Your task to perform on an android device: When is my next meeting? Image 0: 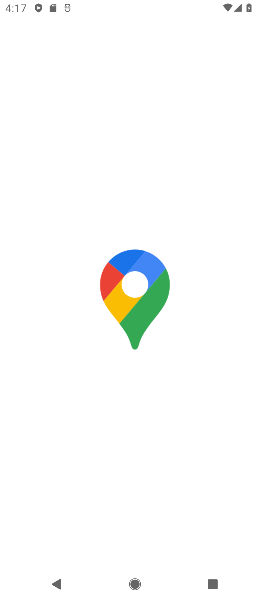
Step 0: press home button
Your task to perform on an android device: When is my next meeting? Image 1: 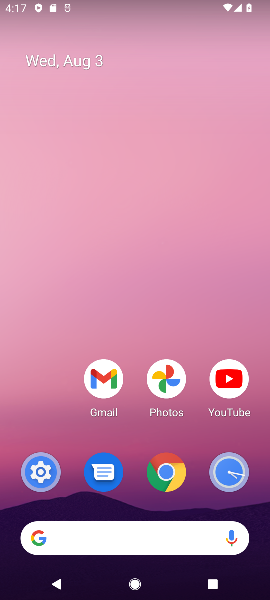
Step 1: drag from (132, 424) to (189, 61)
Your task to perform on an android device: When is my next meeting? Image 2: 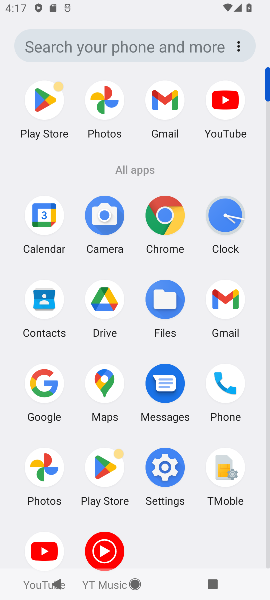
Step 2: click (44, 213)
Your task to perform on an android device: When is my next meeting? Image 3: 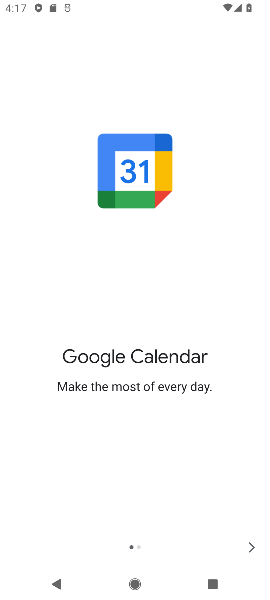
Step 3: click (248, 544)
Your task to perform on an android device: When is my next meeting? Image 4: 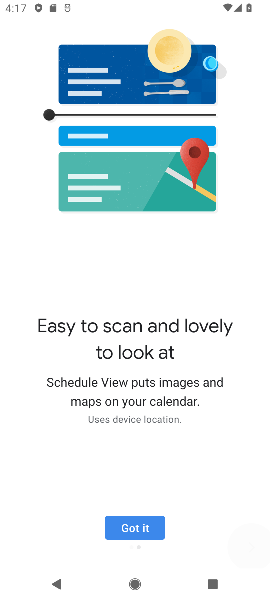
Step 4: click (248, 544)
Your task to perform on an android device: When is my next meeting? Image 5: 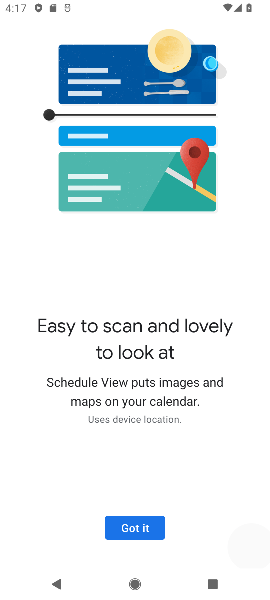
Step 5: click (248, 544)
Your task to perform on an android device: When is my next meeting? Image 6: 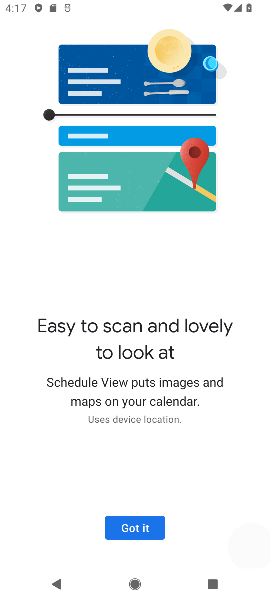
Step 6: click (126, 517)
Your task to perform on an android device: When is my next meeting? Image 7: 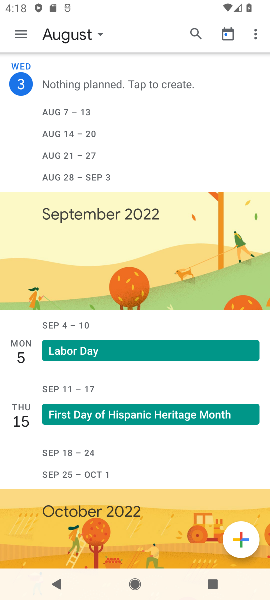
Step 7: click (88, 32)
Your task to perform on an android device: When is my next meeting? Image 8: 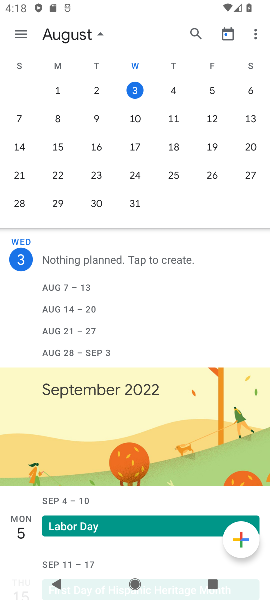
Step 8: click (32, 35)
Your task to perform on an android device: When is my next meeting? Image 9: 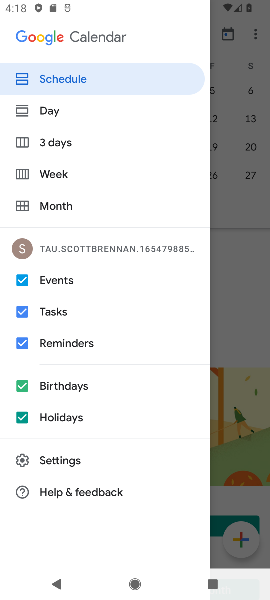
Step 9: click (53, 147)
Your task to perform on an android device: When is my next meeting? Image 10: 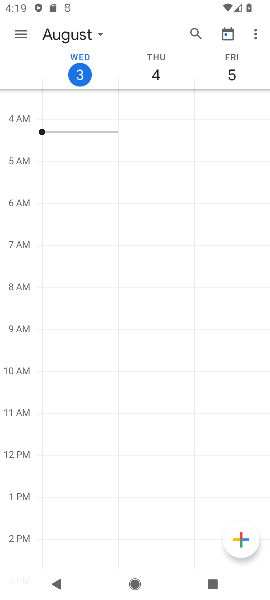
Step 10: task complete